Your task to perform on an android device: change your default location settings in chrome Image 0: 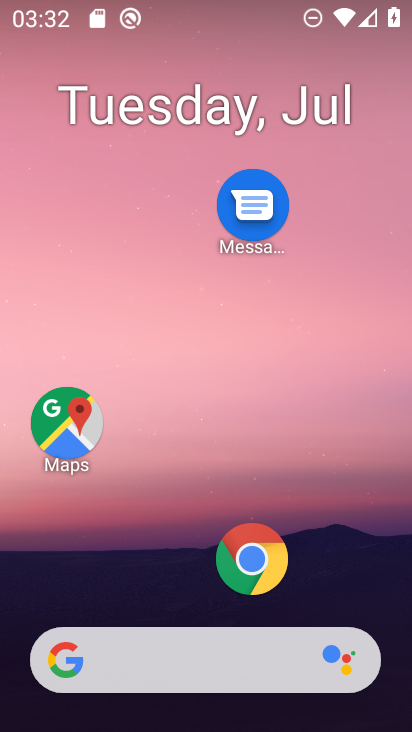
Step 0: drag from (136, 629) to (251, 86)
Your task to perform on an android device: change your default location settings in chrome Image 1: 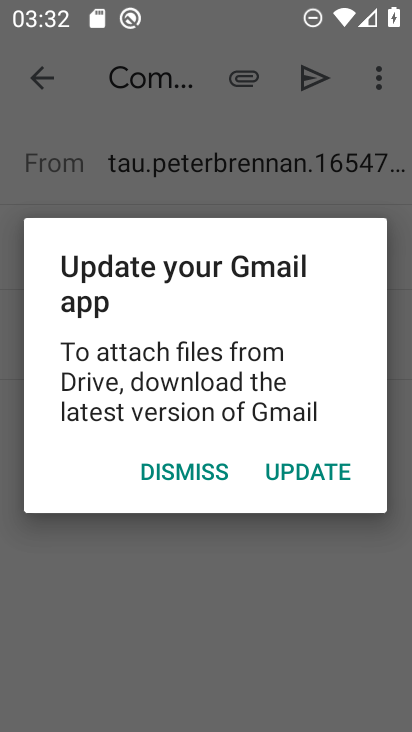
Step 1: click (177, 483)
Your task to perform on an android device: change your default location settings in chrome Image 2: 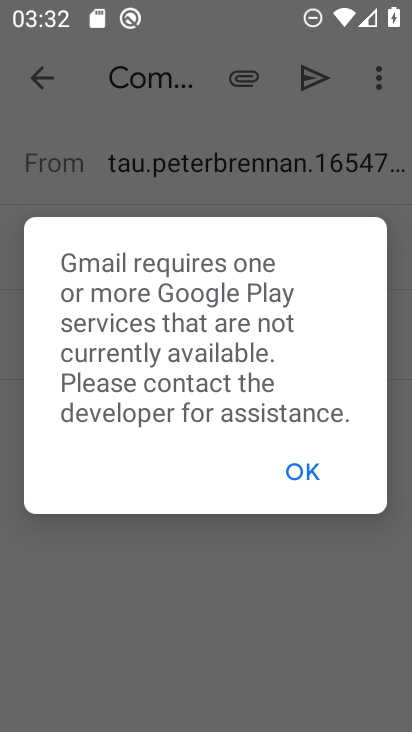
Step 2: click (301, 471)
Your task to perform on an android device: change your default location settings in chrome Image 3: 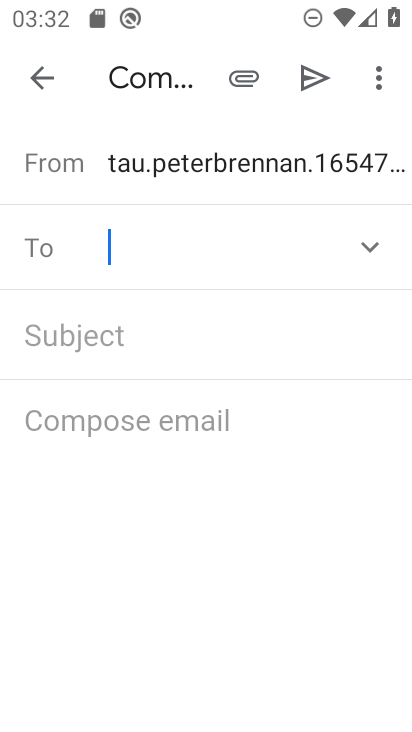
Step 3: press back button
Your task to perform on an android device: change your default location settings in chrome Image 4: 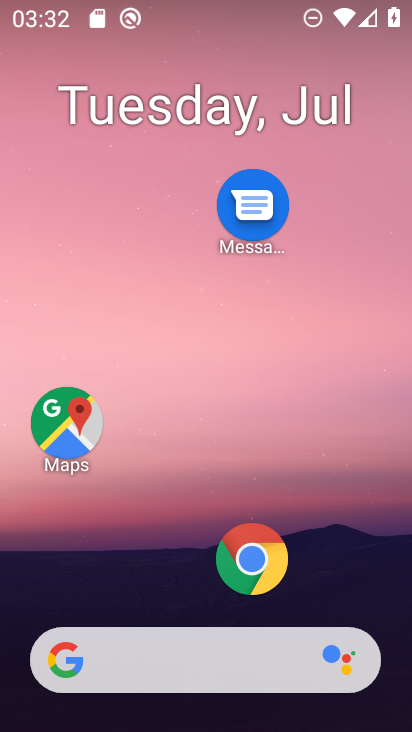
Step 4: click (273, 567)
Your task to perform on an android device: change your default location settings in chrome Image 5: 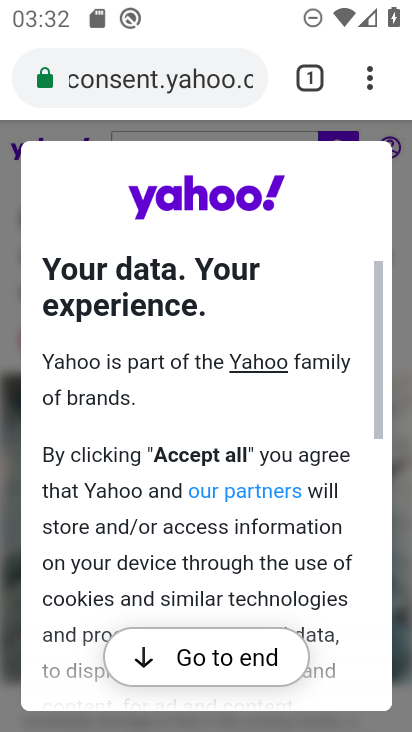
Step 5: click (364, 71)
Your task to perform on an android device: change your default location settings in chrome Image 6: 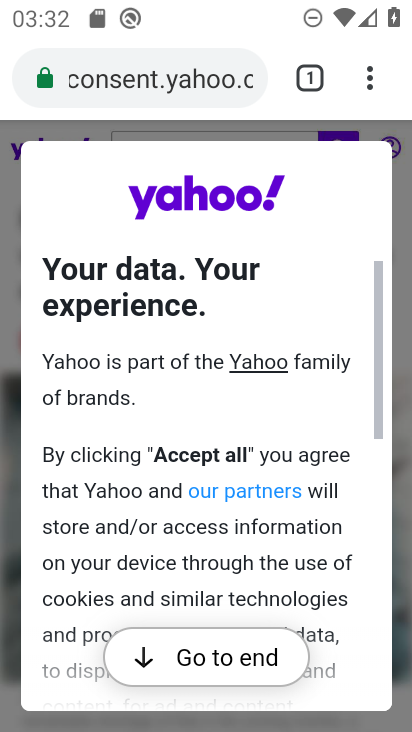
Step 6: drag from (365, 72) to (97, 626)
Your task to perform on an android device: change your default location settings in chrome Image 7: 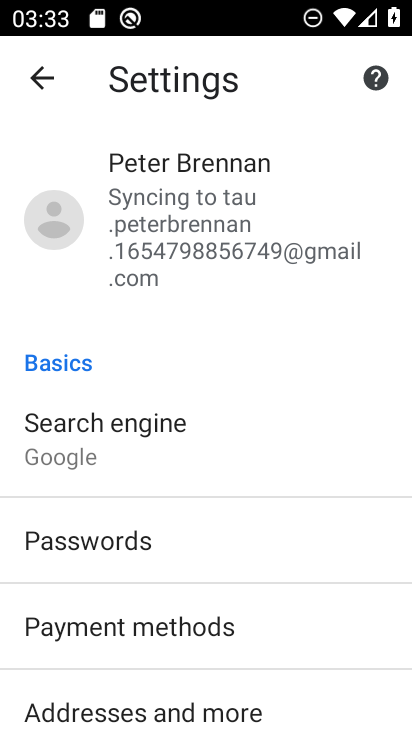
Step 7: drag from (153, 651) to (310, 43)
Your task to perform on an android device: change your default location settings in chrome Image 8: 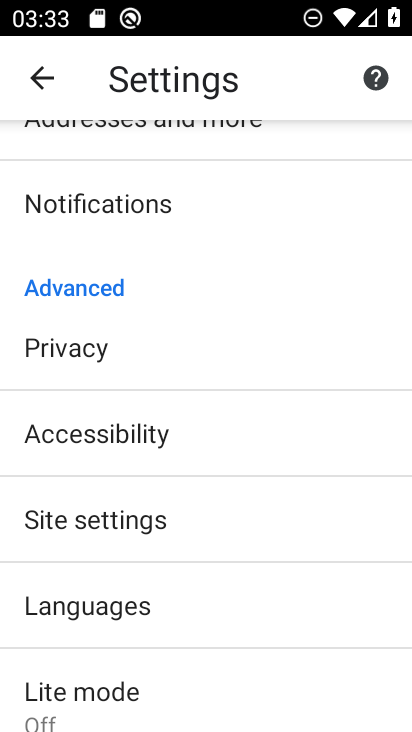
Step 8: click (133, 511)
Your task to perform on an android device: change your default location settings in chrome Image 9: 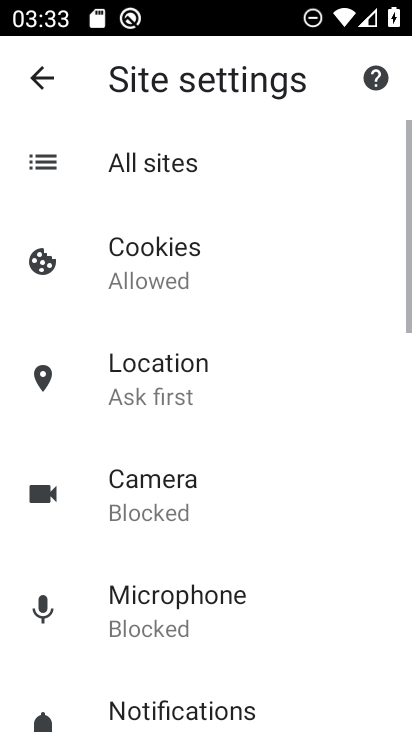
Step 9: drag from (144, 663) to (301, 51)
Your task to perform on an android device: change your default location settings in chrome Image 10: 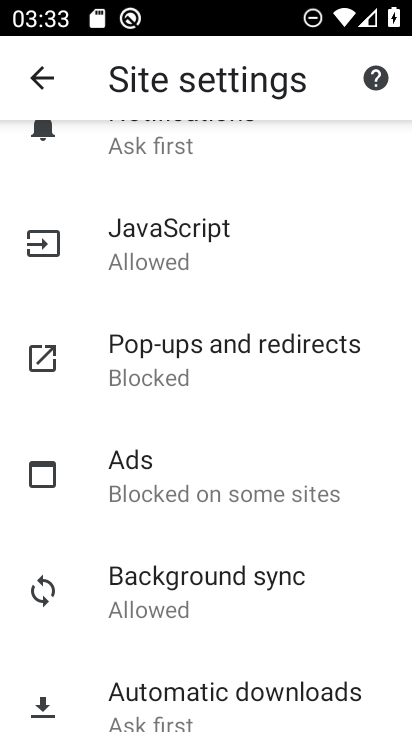
Step 10: drag from (231, 290) to (163, 672)
Your task to perform on an android device: change your default location settings in chrome Image 11: 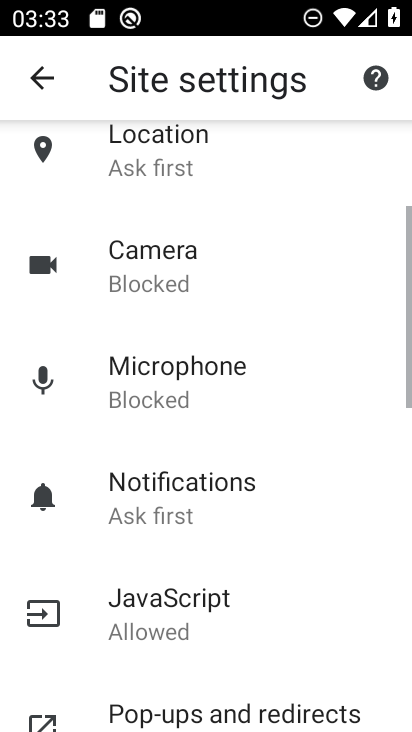
Step 11: click (183, 210)
Your task to perform on an android device: change your default location settings in chrome Image 12: 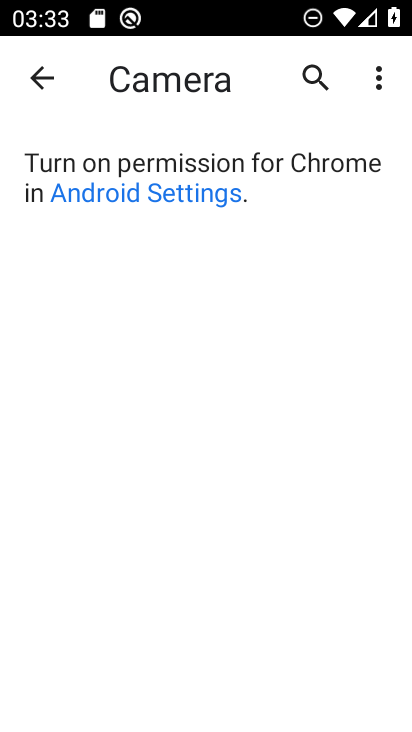
Step 12: click (24, 64)
Your task to perform on an android device: change your default location settings in chrome Image 13: 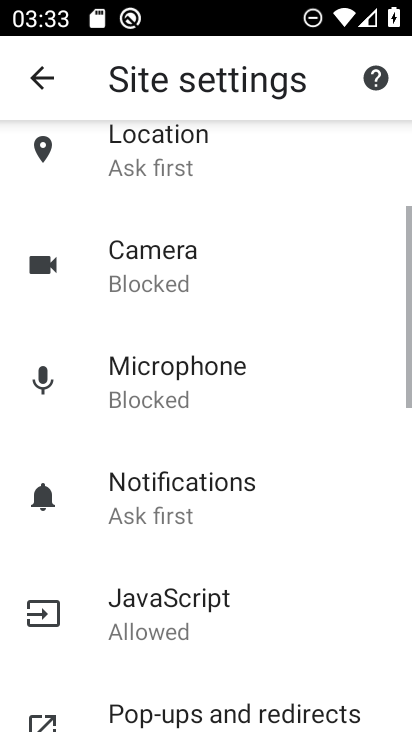
Step 13: click (183, 165)
Your task to perform on an android device: change your default location settings in chrome Image 14: 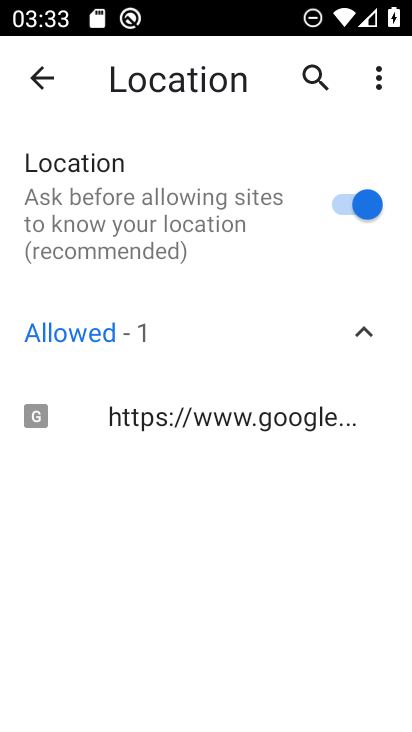
Step 14: click (217, 420)
Your task to perform on an android device: change your default location settings in chrome Image 15: 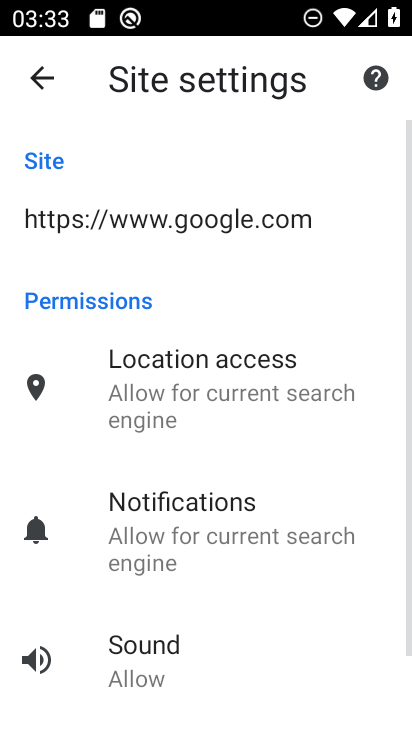
Step 15: click (190, 395)
Your task to perform on an android device: change your default location settings in chrome Image 16: 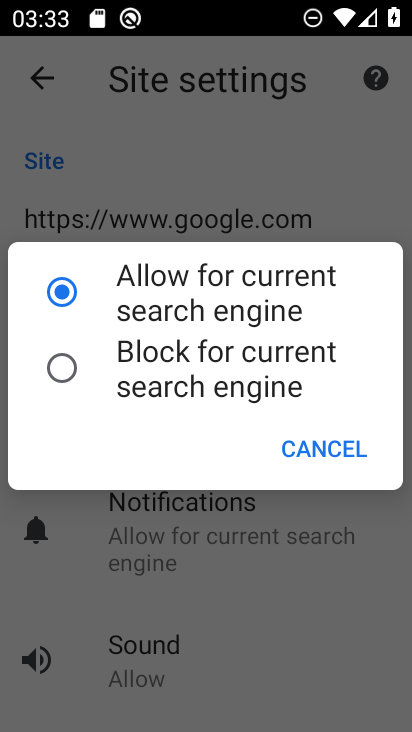
Step 16: click (327, 450)
Your task to perform on an android device: change your default location settings in chrome Image 17: 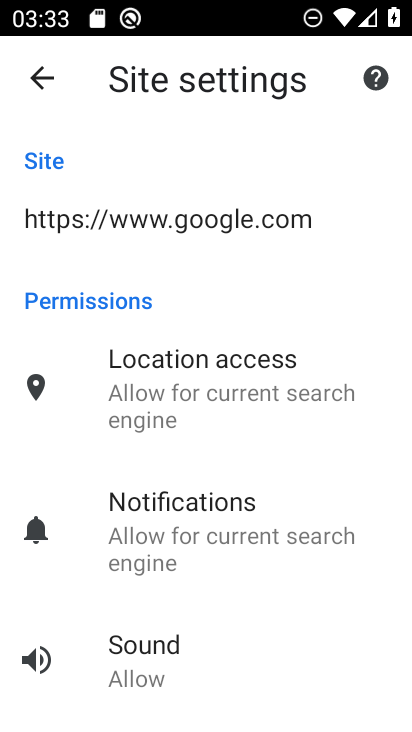
Step 17: task complete